Your task to perform on an android device: Go to Maps Image 0: 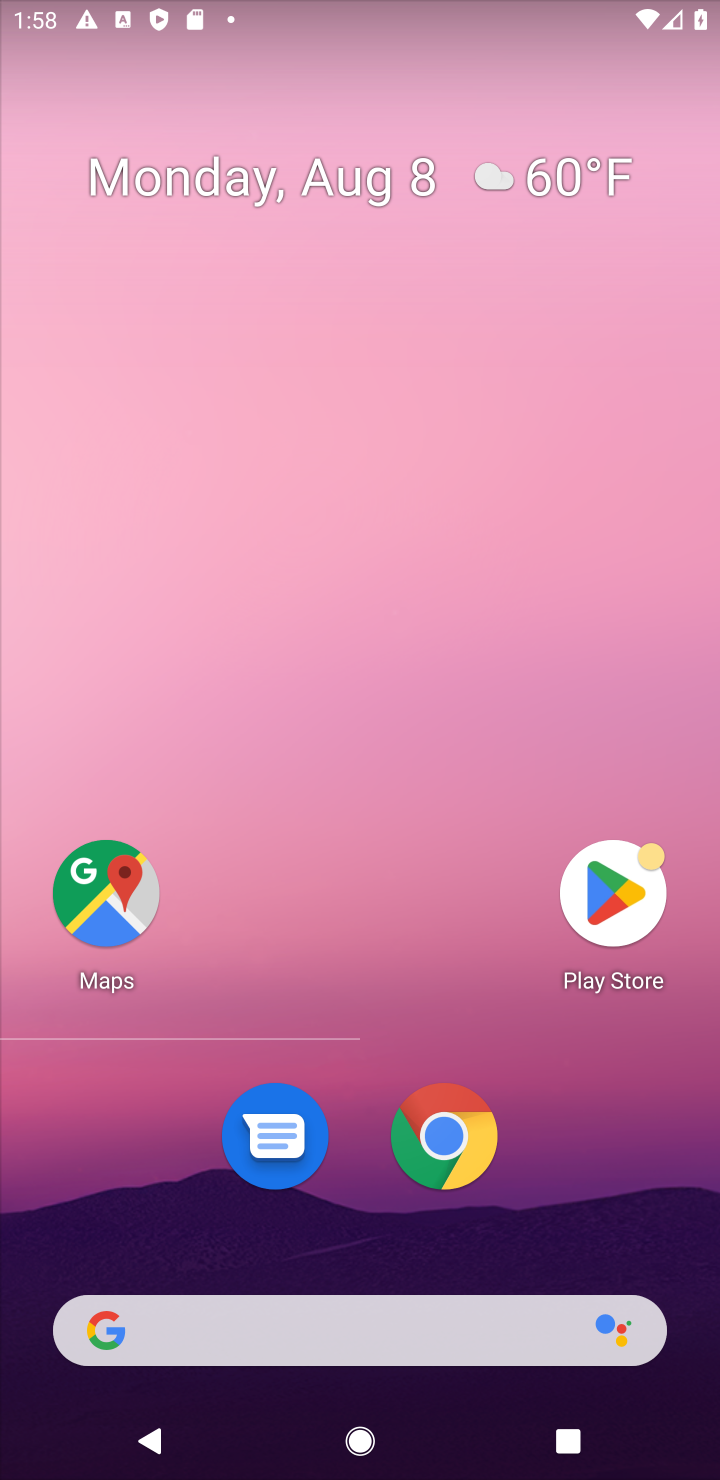
Step 0: click (146, 892)
Your task to perform on an android device: Go to Maps Image 1: 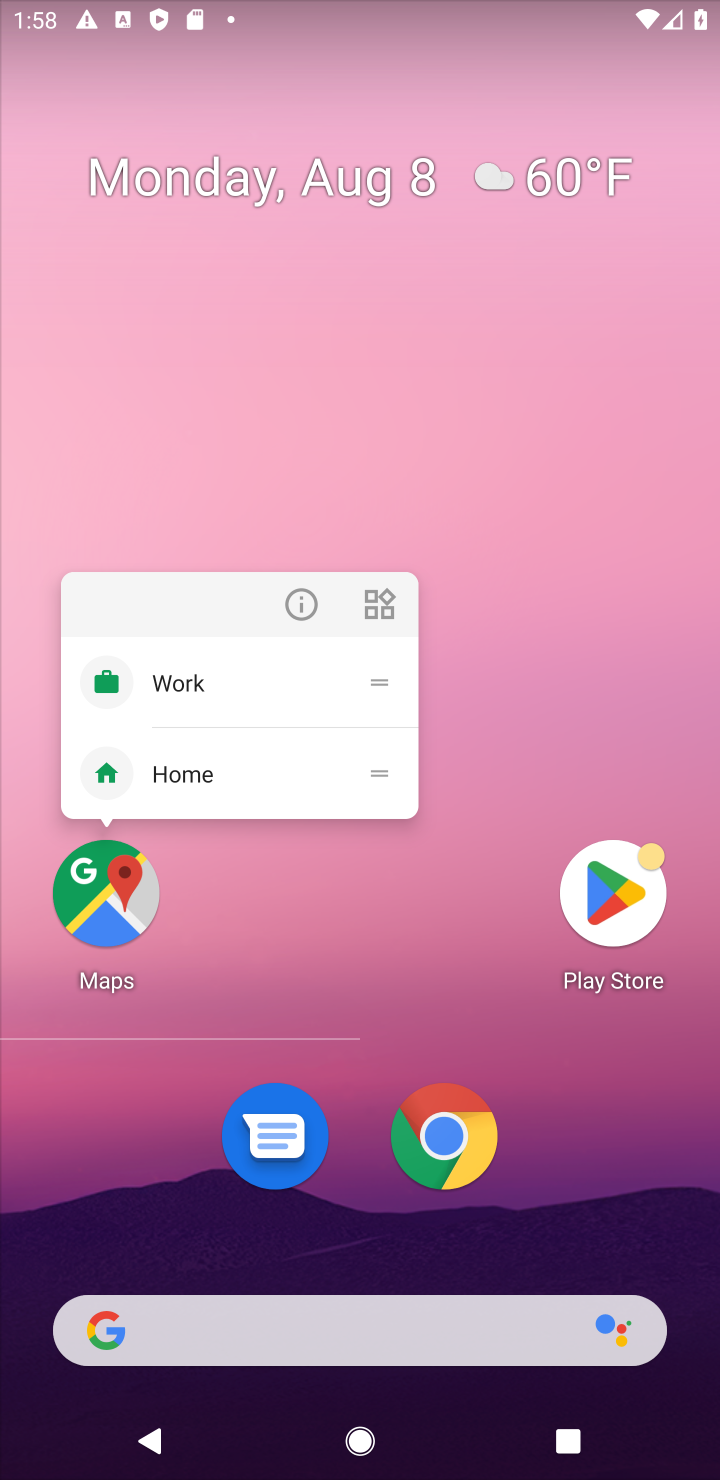
Step 1: click (109, 892)
Your task to perform on an android device: Go to Maps Image 2: 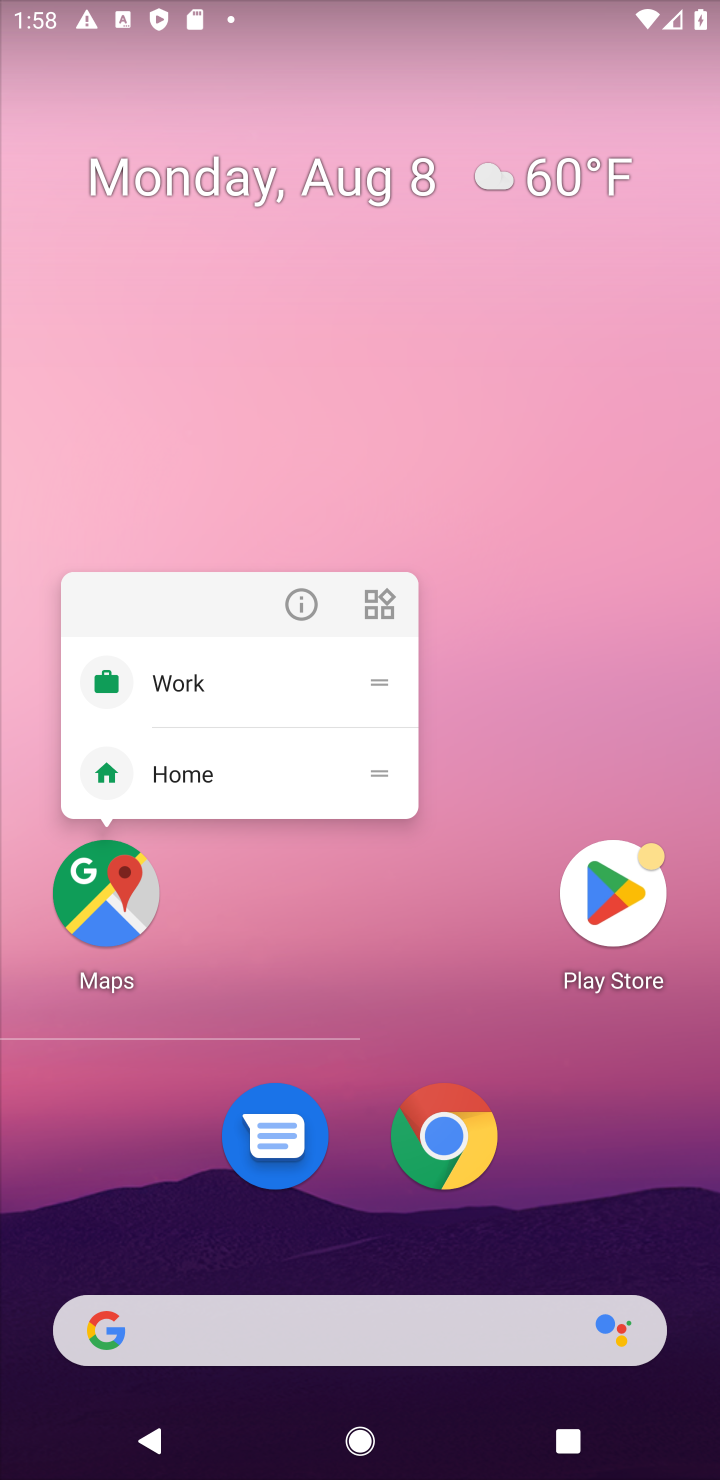
Step 2: click (109, 892)
Your task to perform on an android device: Go to Maps Image 3: 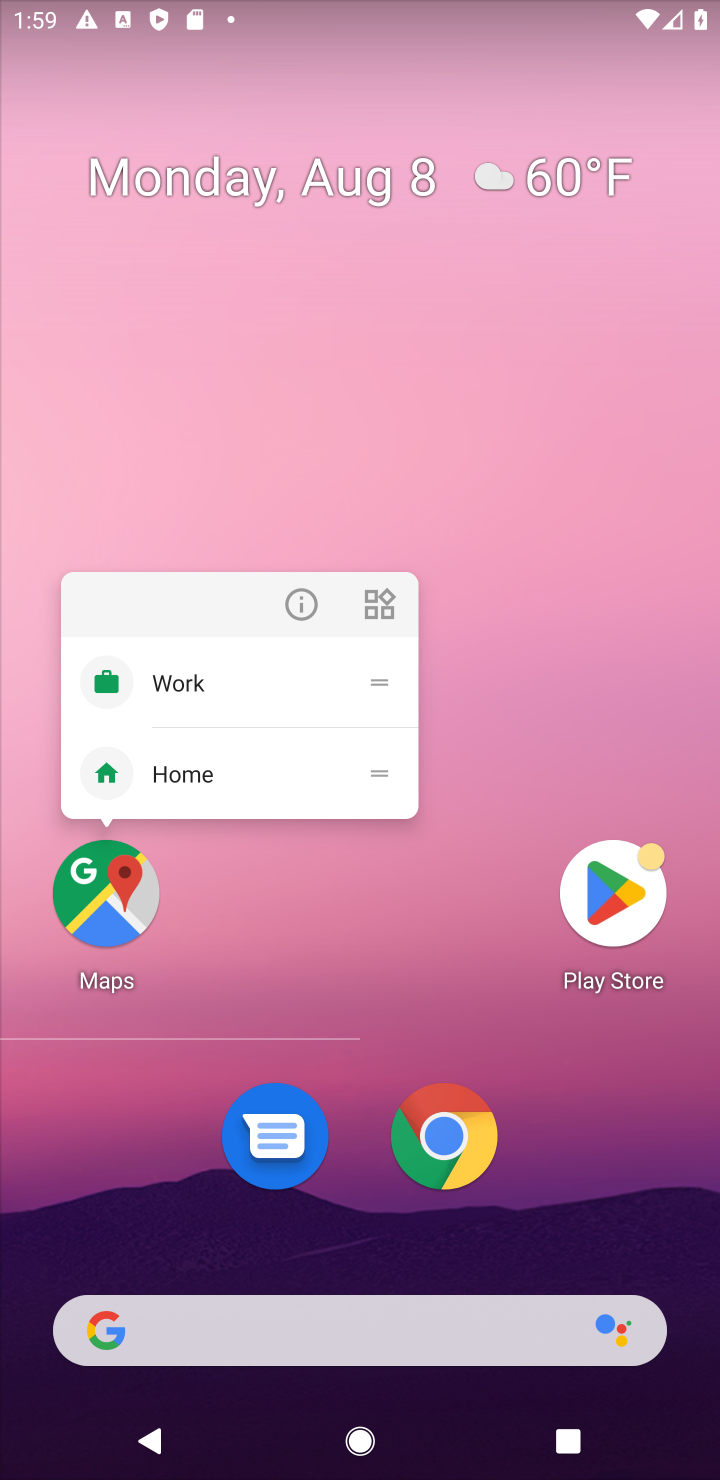
Step 3: click (109, 892)
Your task to perform on an android device: Go to Maps Image 4: 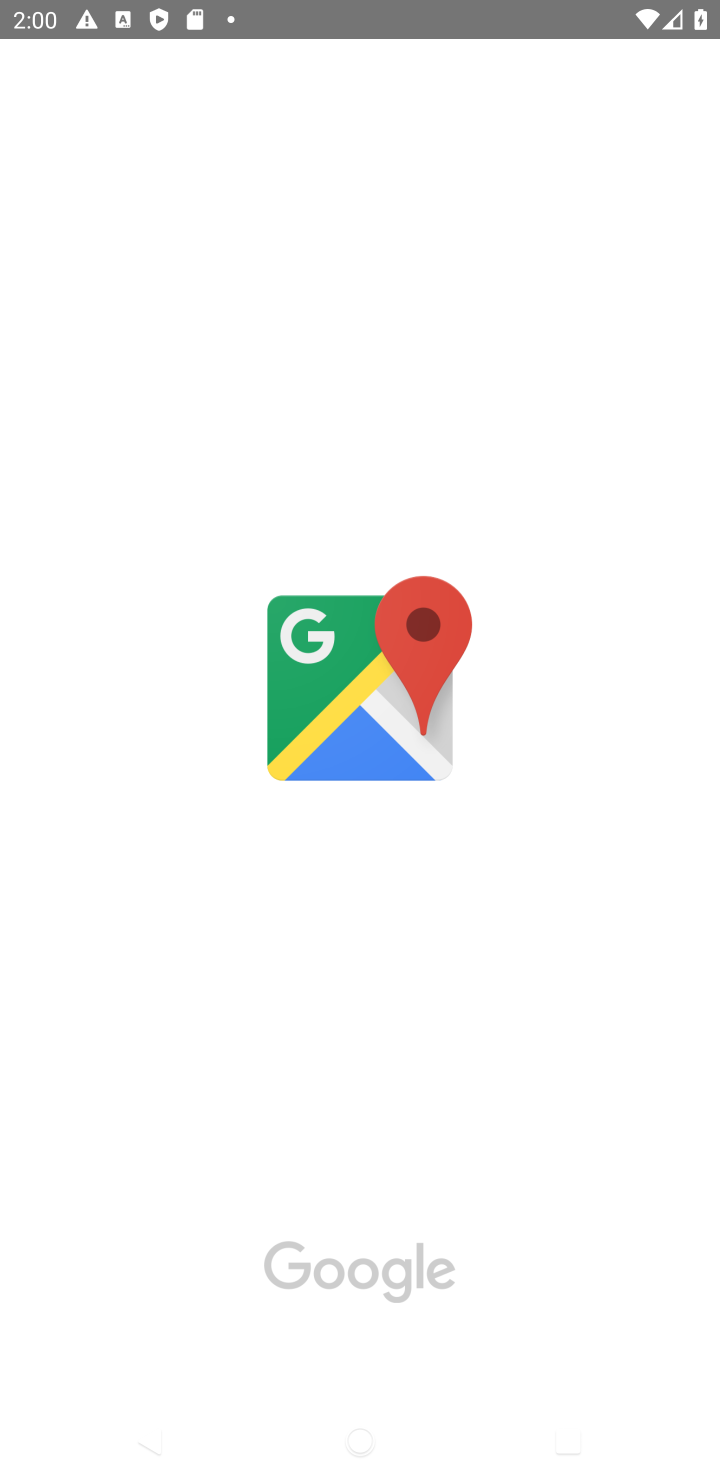
Step 4: task complete